Your task to perform on an android device: toggle location history Image 0: 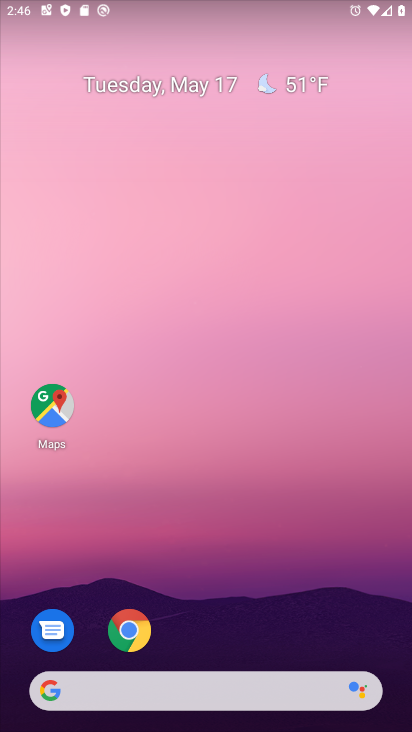
Step 0: drag from (220, 615) to (256, 216)
Your task to perform on an android device: toggle location history Image 1: 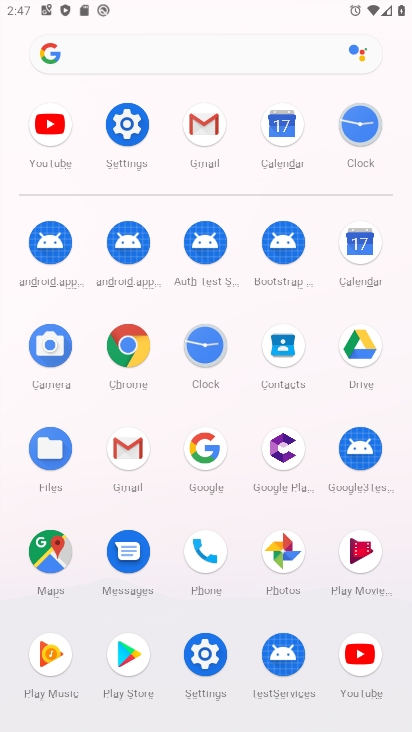
Step 1: click (128, 133)
Your task to perform on an android device: toggle location history Image 2: 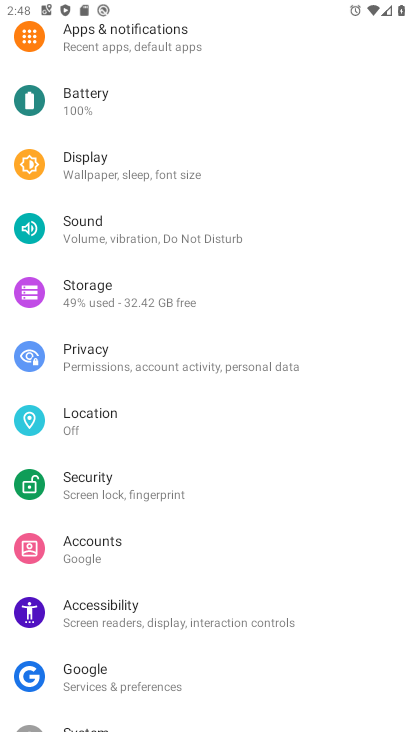
Step 2: click (125, 420)
Your task to perform on an android device: toggle location history Image 3: 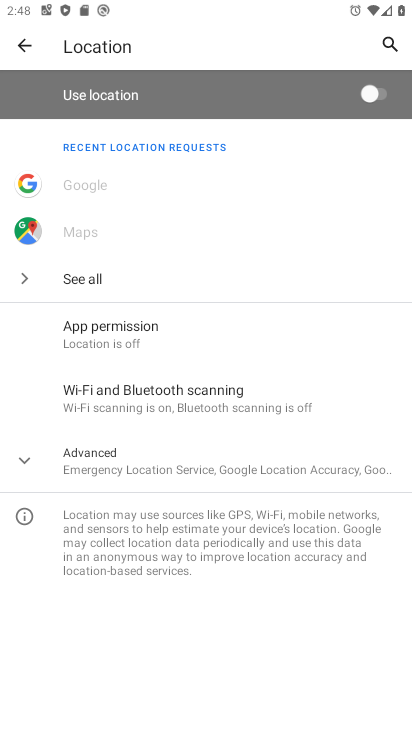
Step 3: click (137, 478)
Your task to perform on an android device: toggle location history Image 4: 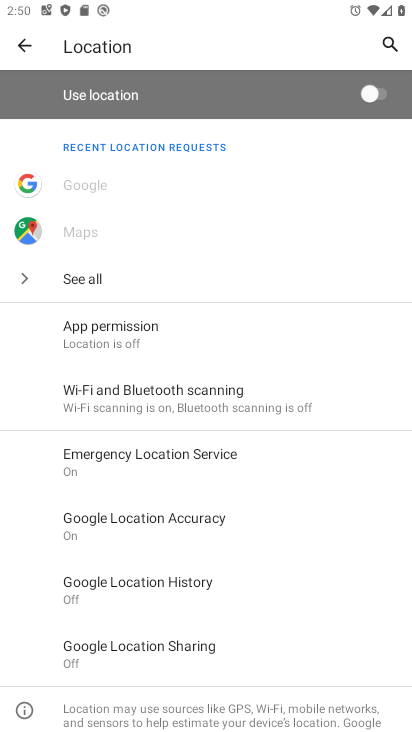
Step 4: click (182, 583)
Your task to perform on an android device: toggle location history Image 5: 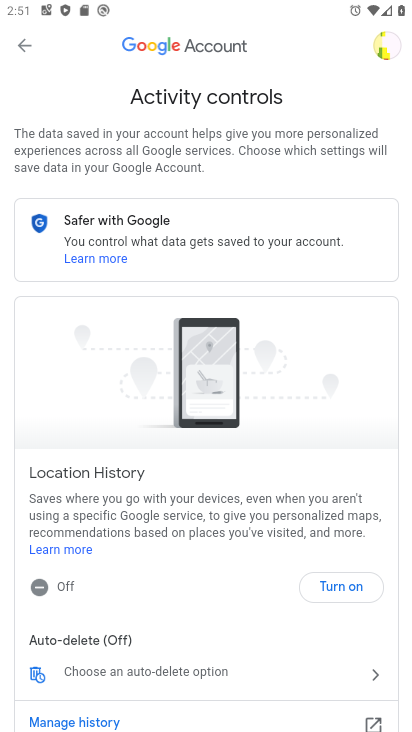
Step 5: click (336, 585)
Your task to perform on an android device: toggle location history Image 6: 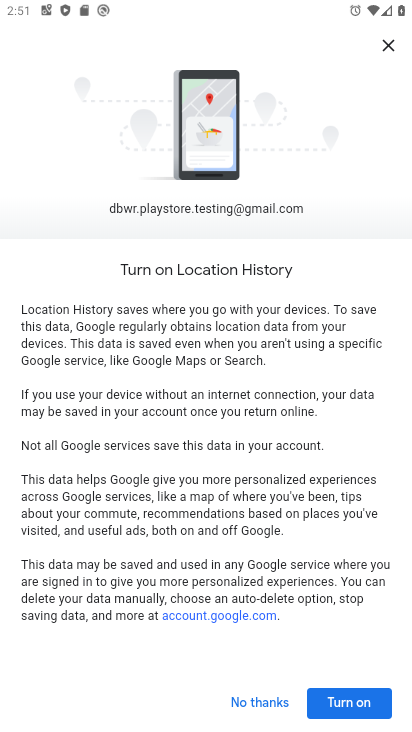
Step 6: click (332, 709)
Your task to perform on an android device: toggle location history Image 7: 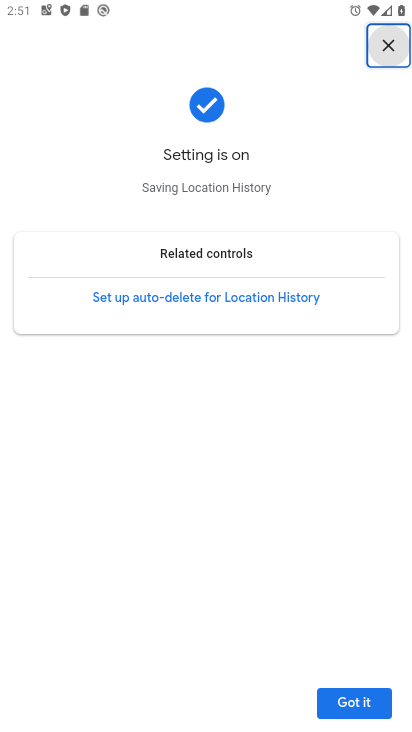
Step 7: task complete